Your task to perform on an android device: search for starred emails in the gmail app Image 0: 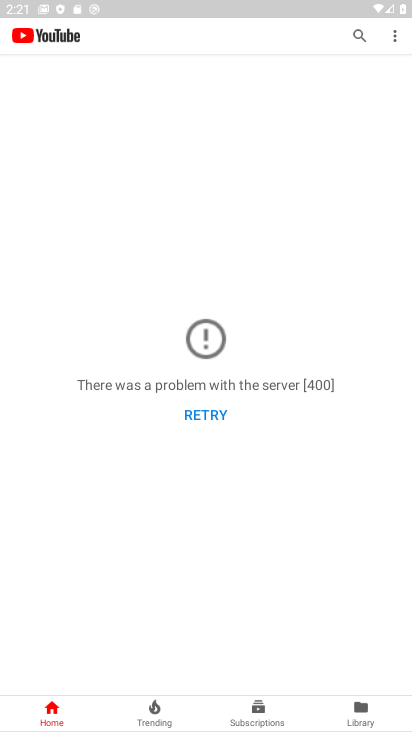
Step 0: press home button
Your task to perform on an android device: search for starred emails in the gmail app Image 1: 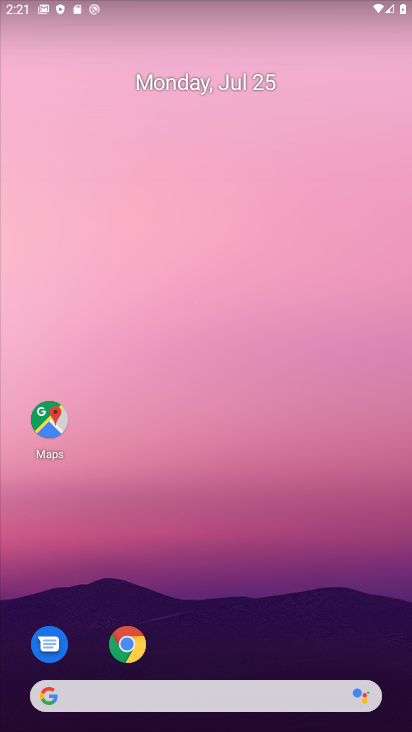
Step 1: drag from (163, 698) to (195, 225)
Your task to perform on an android device: search for starred emails in the gmail app Image 2: 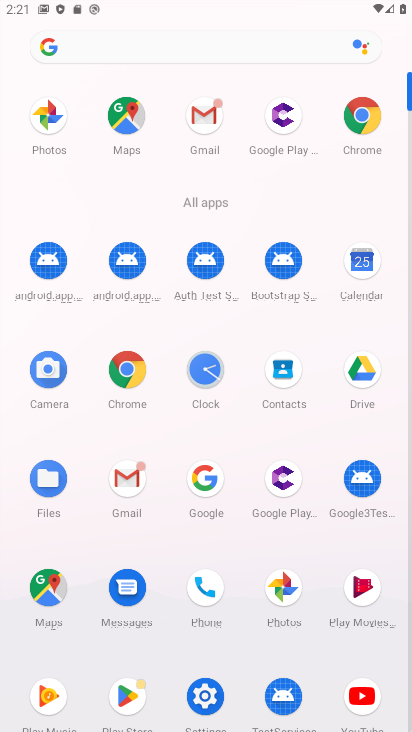
Step 2: click (123, 460)
Your task to perform on an android device: search for starred emails in the gmail app Image 3: 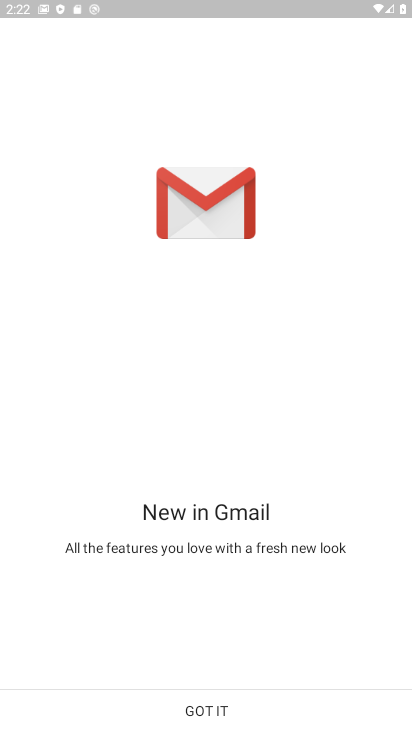
Step 3: click (226, 698)
Your task to perform on an android device: search for starred emails in the gmail app Image 4: 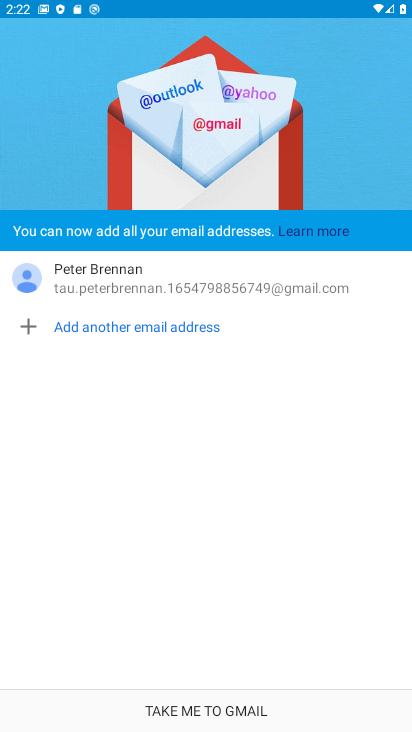
Step 4: click (226, 698)
Your task to perform on an android device: search for starred emails in the gmail app Image 5: 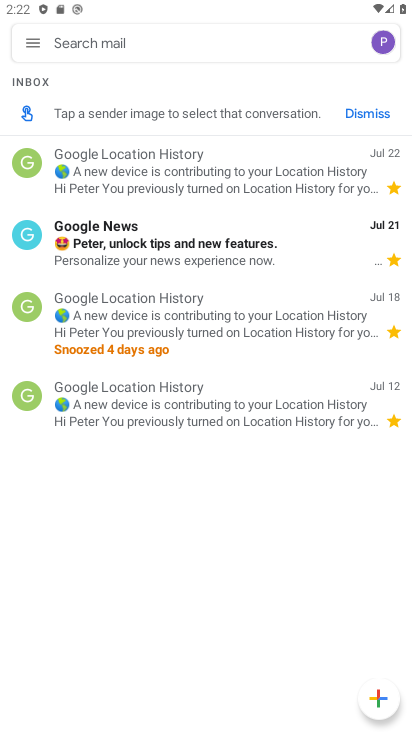
Step 5: click (32, 60)
Your task to perform on an android device: search for starred emails in the gmail app Image 6: 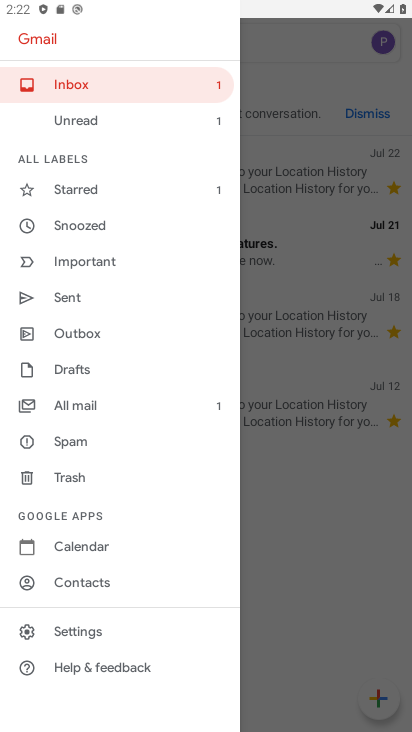
Step 6: click (88, 190)
Your task to perform on an android device: search for starred emails in the gmail app Image 7: 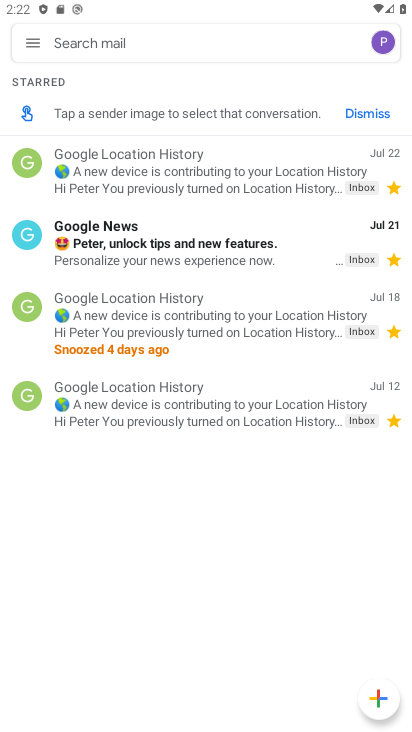
Step 7: task complete